Your task to perform on an android device: Open the map Image 0: 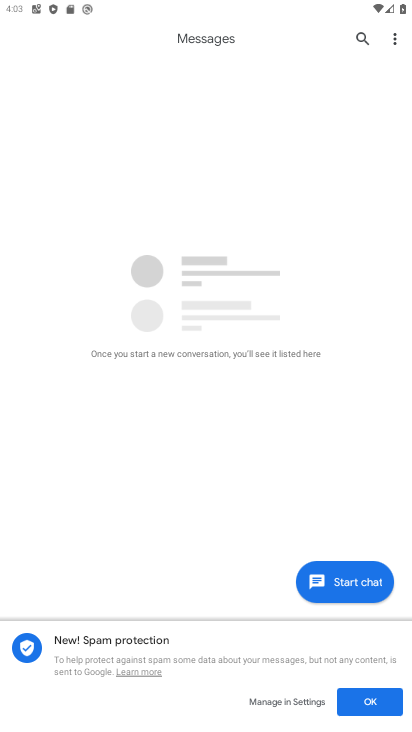
Step 0: press home button
Your task to perform on an android device: Open the map Image 1: 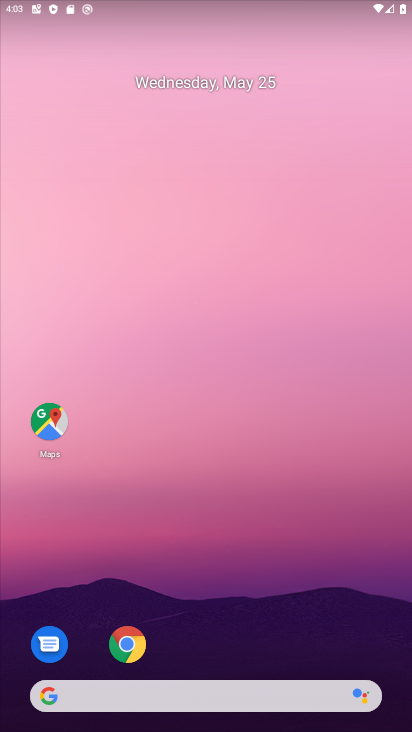
Step 1: click (55, 431)
Your task to perform on an android device: Open the map Image 2: 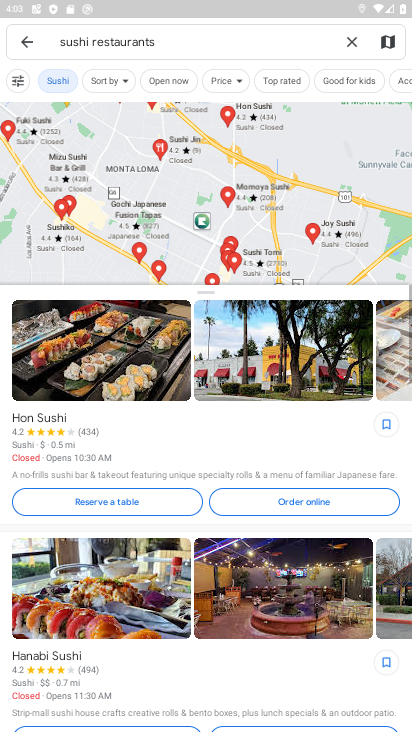
Step 2: task complete